Your task to perform on an android device: toggle location history Image 0: 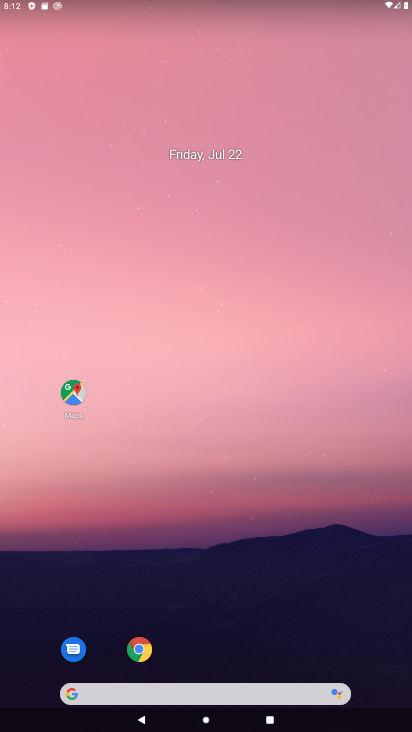
Step 0: drag from (220, 590) to (254, 235)
Your task to perform on an android device: toggle location history Image 1: 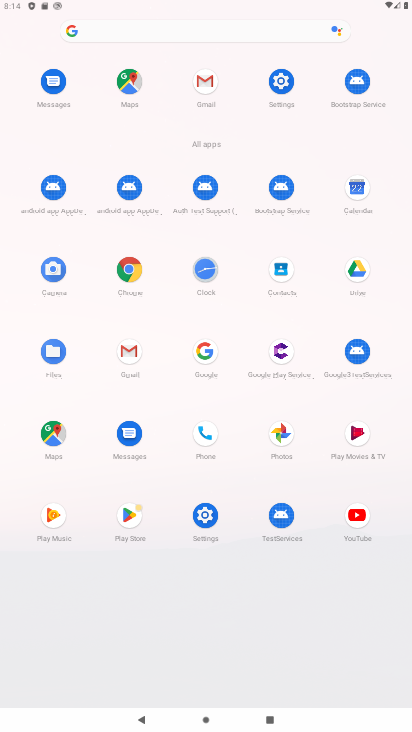
Step 1: click (209, 511)
Your task to perform on an android device: toggle location history Image 2: 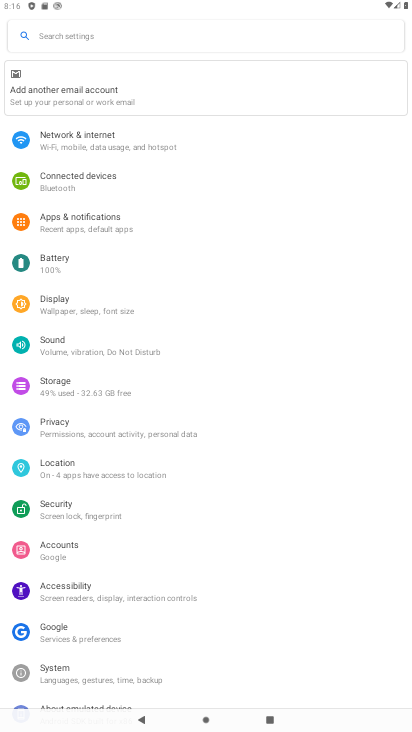
Step 2: click (64, 471)
Your task to perform on an android device: toggle location history Image 3: 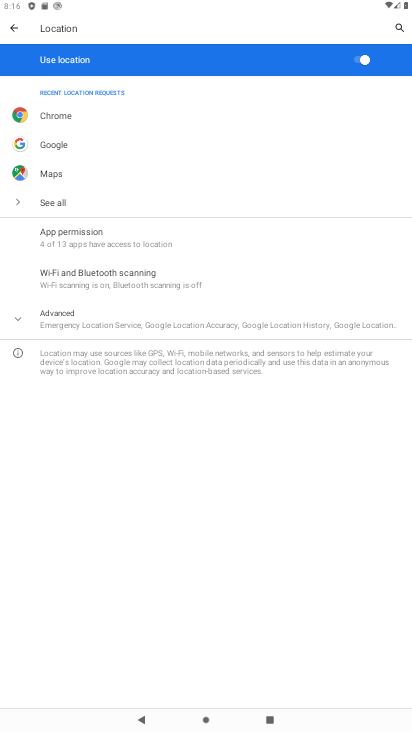
Step 3: task complete